Your task to perform on an android device: set default search engine in the chrome app Image 0: 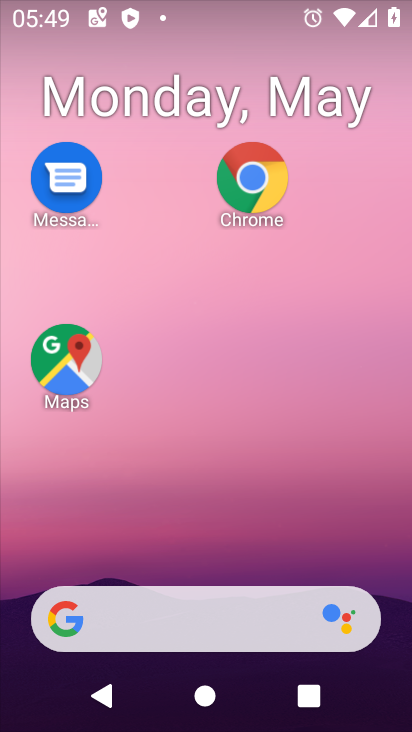
Step 0: drag from (222, 538) to (95, 40)
Your task to perform on an android device: set default search engine in the chrome app Image 1: 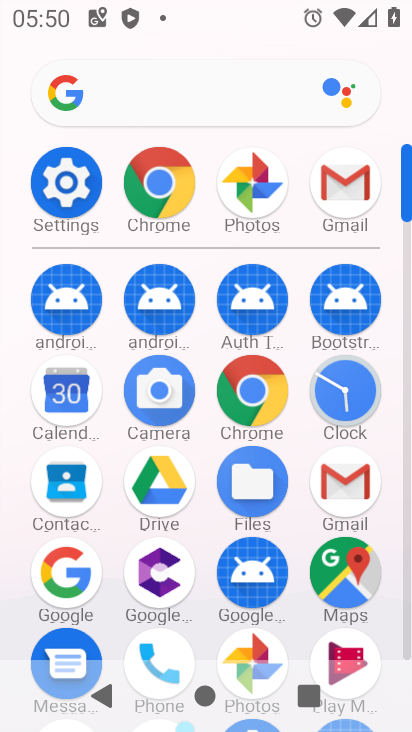
Step 1: click (252, 374)
Your task to perform on an android device: set default search engine in the chrome app Image 2: 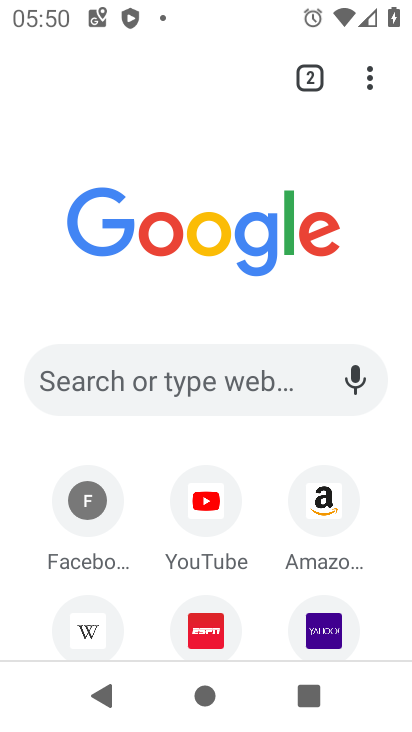
Step 2: click (368, 83)
Your task to perform on an android device: set default search engine in the chrome app Image 3: 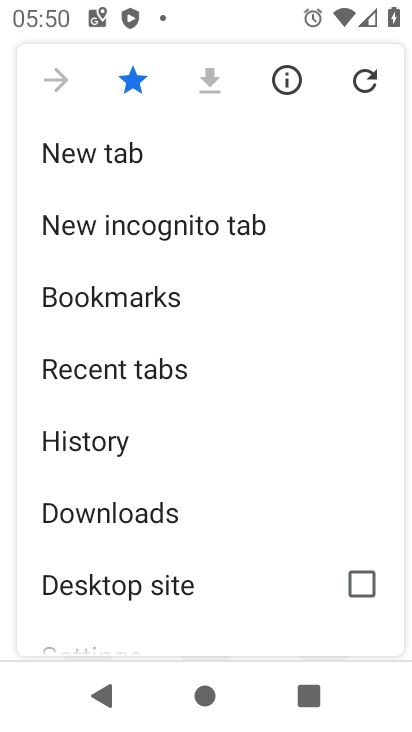
Step 3: drag from (157, 564) to (263, 248)
Your task to perform on an android device: set default search engine in the chrome app Image 4: 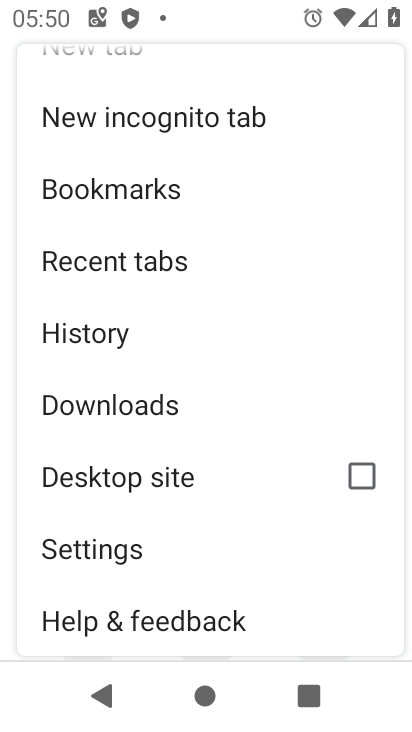
Step 4: click (104, 550)
Your task to perform on an android device: set default search engine in the chrome app Image 5: 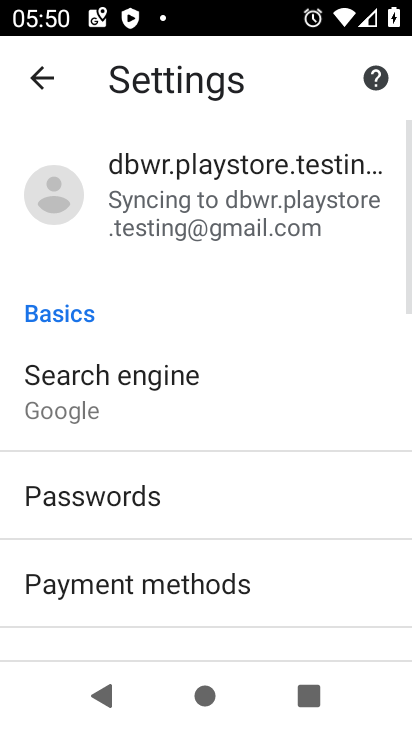
Step 5: drag from (128, 579) to (210, 247)
Your task to perform on an android device: set default search engine in the chrome app Image 6: 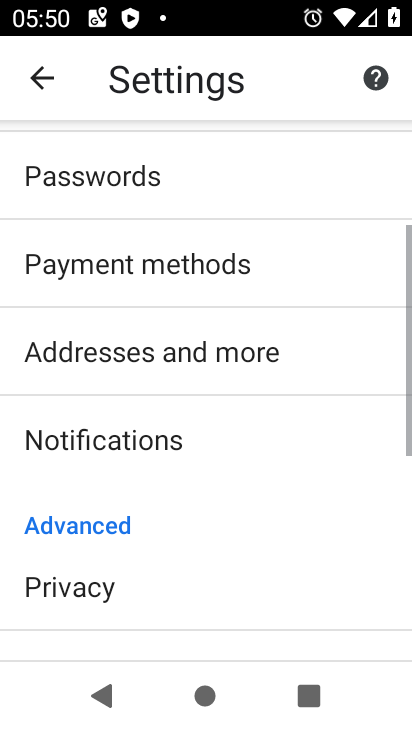
Step 6: drag from (174, 568) to (231, 307)
Your task to perform on an android device: set default search engine in the chrome app Image 7: 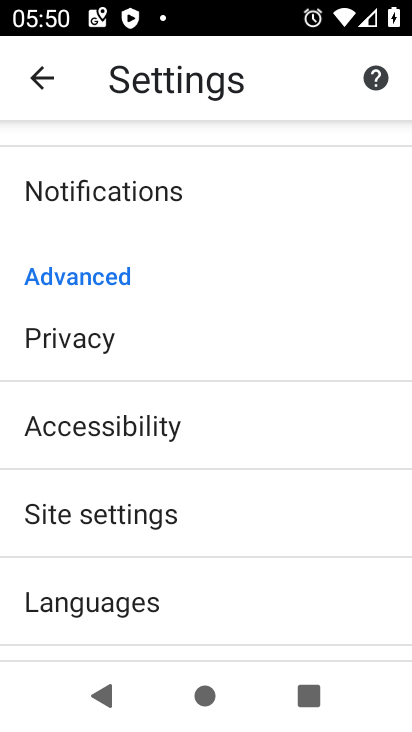
Step 7: drag from (241, 254) to (64, 220)
Your task to perform on an android device: set default search engine in the chrome app Image 8: 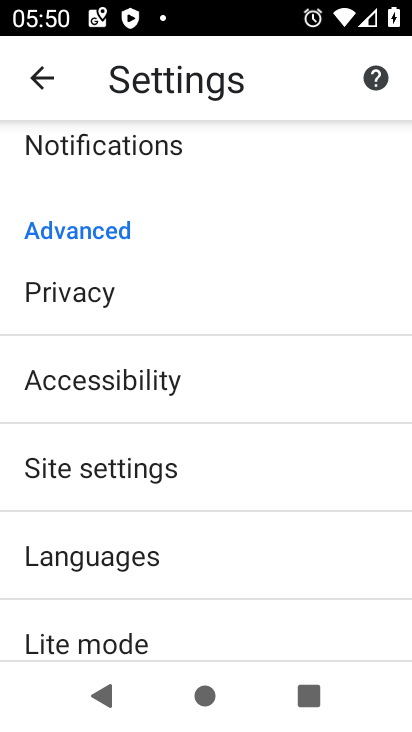
Step 8: click (14, 728)
Your task to perform on an android device: set default search engine in the chrome app Image 9: 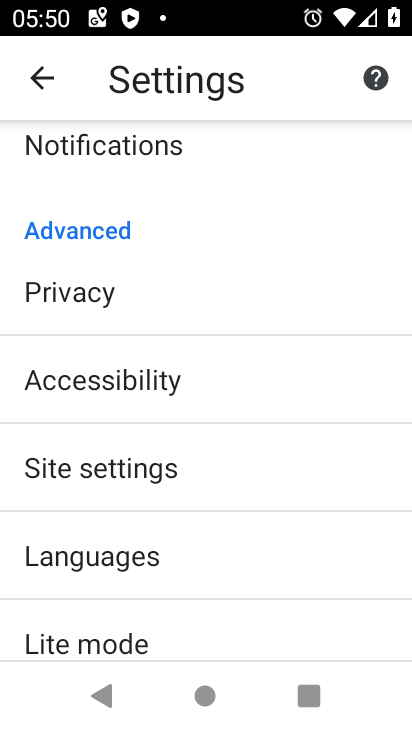
Step 9: drag from (189, 619) to (195, 657)
Your task to perform on an android device: set default search engine in the chrome app Image 10: 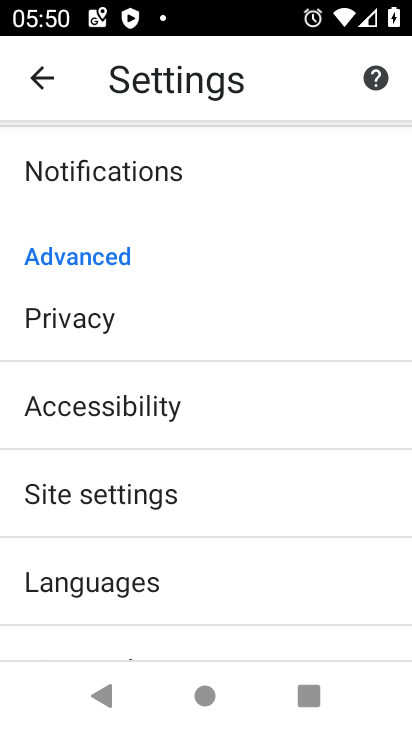
Step 10: drag from (188, 228) to (167, 731)
Your task to perform on an android device: set default search engine in the chrome app Image 11: 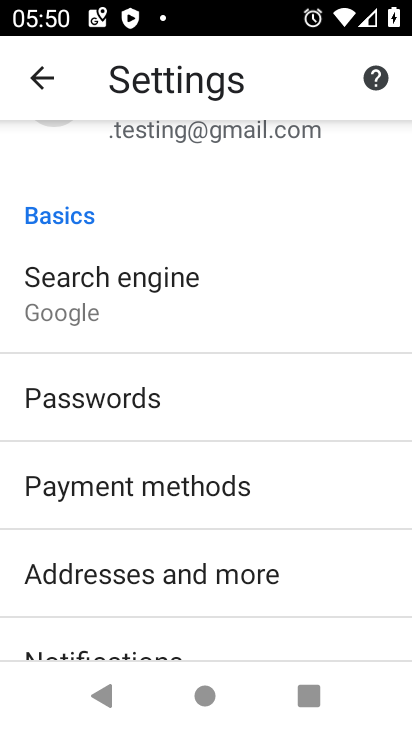
Step 11: click (95, 308)
Your task to perform on an android device: set default search engine in the chrome app Image 12: 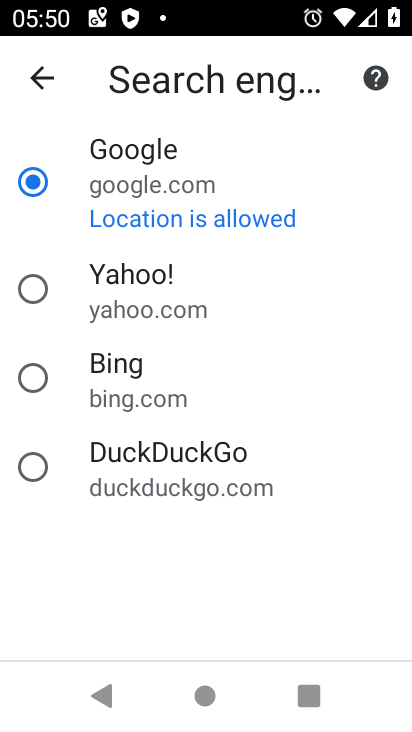
Step 12: click (32, 286)
Your task to perform on an android device: set default search engine in the chrome app Image 13: 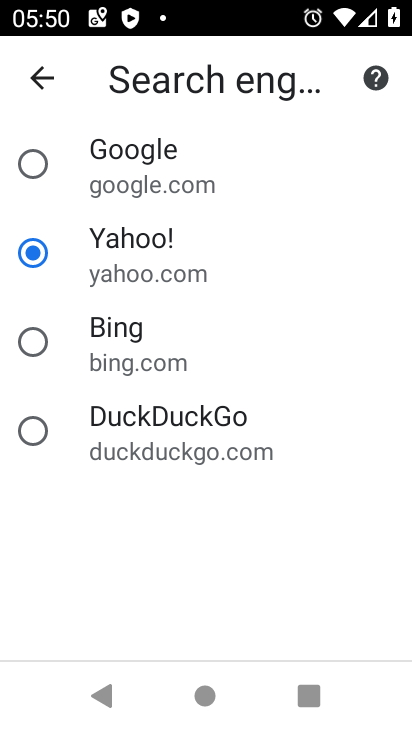
Step 13: task complete